Your task to perform on an android device: stop showing notifications on the lock screen Image 0: 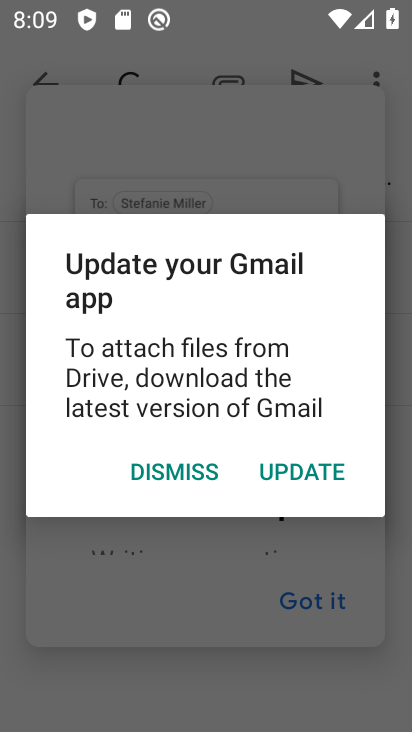
Step 0: press home button
Your task to perform on an android device: stop showing notifications on the lock screen Image 1: 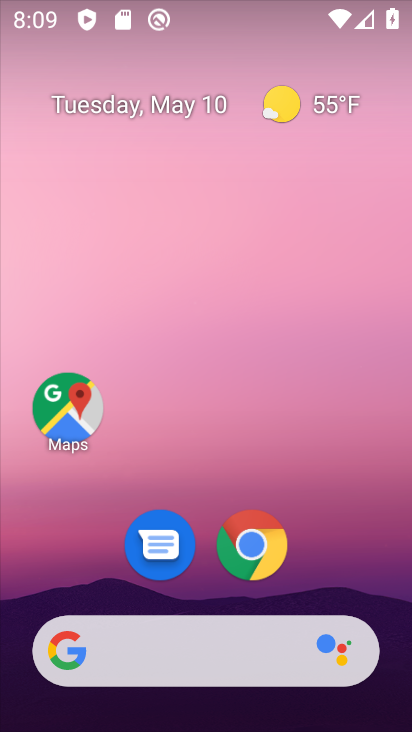
Step 1: drag from (208, 590) to (211, 111)
Your task to perform on an android device: stop showing notifications on the lock screen Image 2: 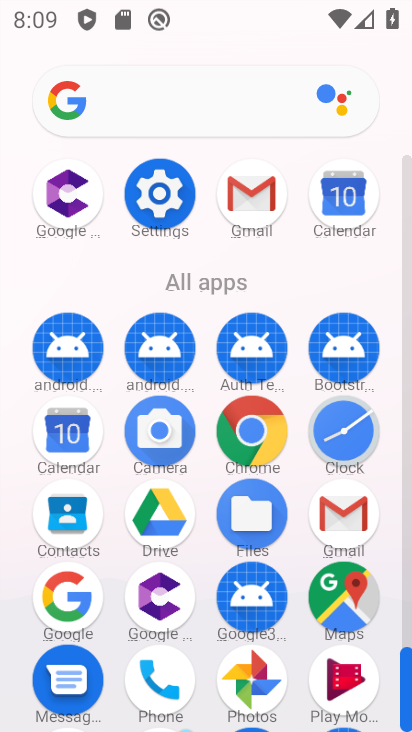
Step 2: click (161, 189)
Your task to perform on an android device: stop showing notifications on the lock screen Image 3: 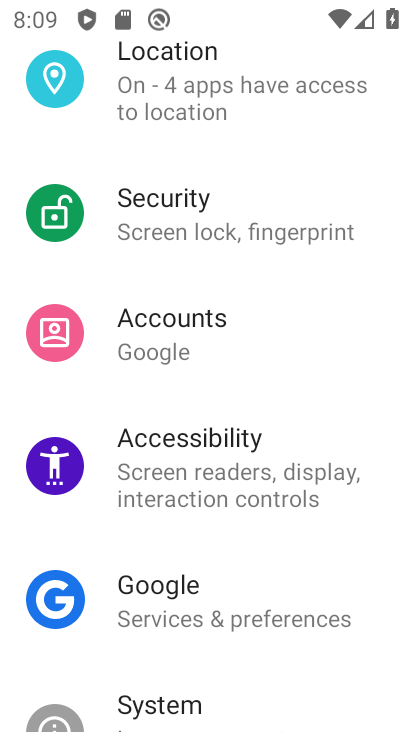
Step 3: drag from (209, 180) to (211, 616)
Your task to perform on an android device: stop showing notifications on the lock screen Image 4: 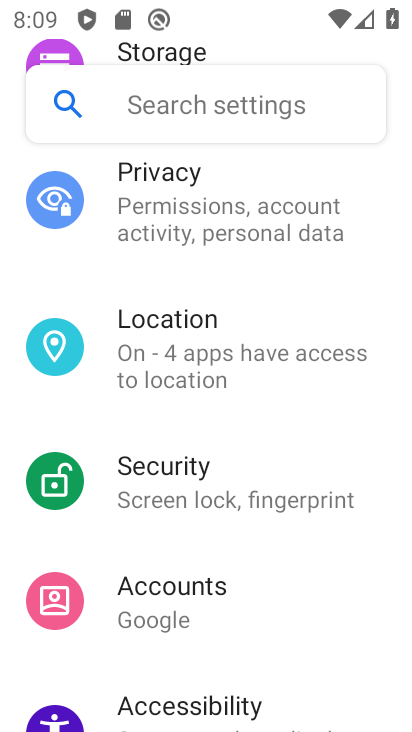
Step 4: drag from (238, 607) to (311, 297)
Your task to perform on an android device: stop showing notifications on the lock screen Image 5: 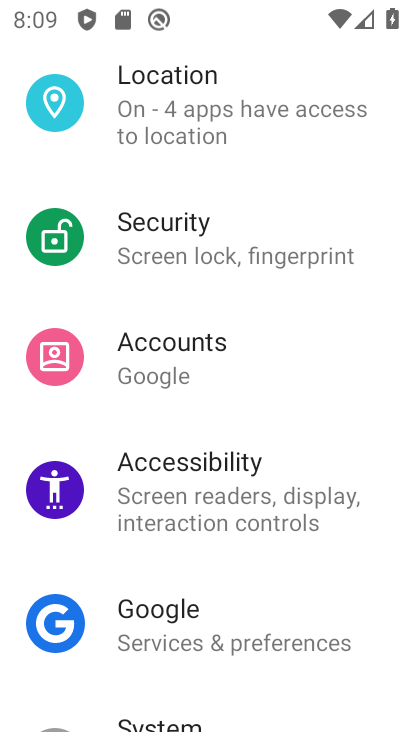
Step 5: drag from (263, 623) to (312, 306)
Your task to perform on an android device: stop showing notifications on the lock screen Image 6: 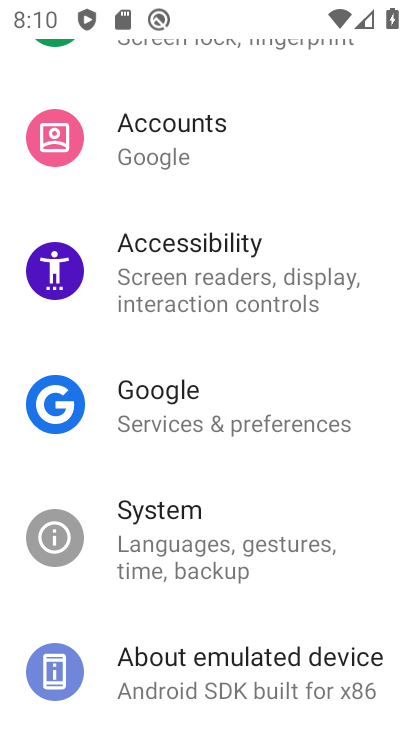
Step 6: drag from (251, 245) to (281, 602)
Your task to perform on an android device: stop showing notifications on the lock screen Image 7: 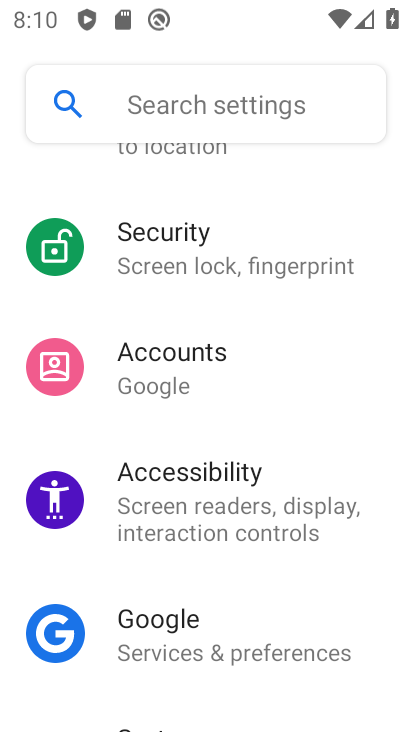
Step 7: drag from (258, 293) to (267, 590)
Your task to perform on an android device: stop showing notifications on the lock screen Image 8: 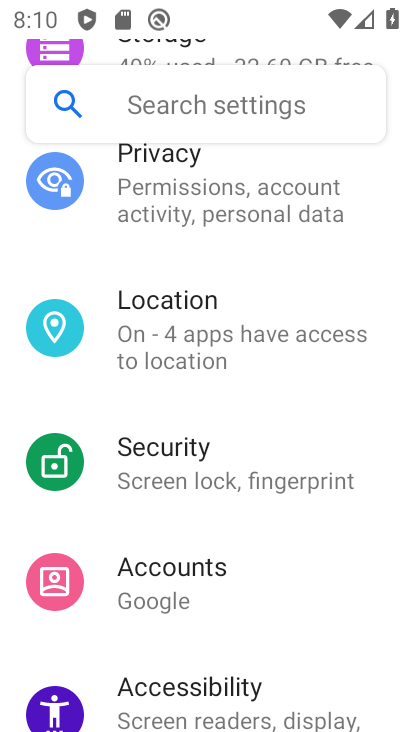
Step 8: drag from (212, 239) to (197, 612)
Your task to perform on an android device: stop showing notifications on the lock screen Image 9: 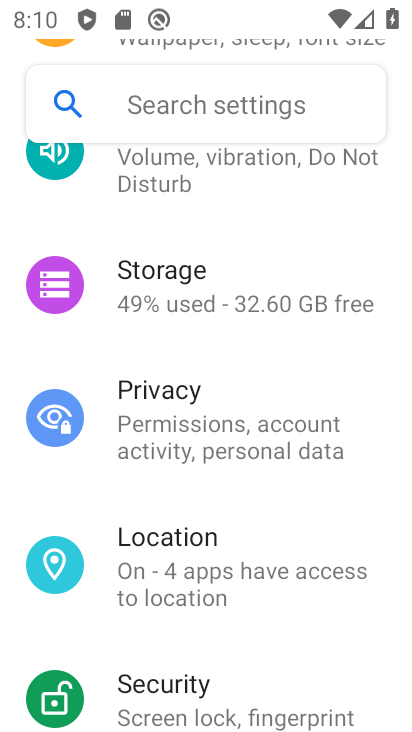
Step 9: drag from (203, 260) to (214, 542)
Your task to perform on an android device: stop showing notifications on the lock screen Image 10: 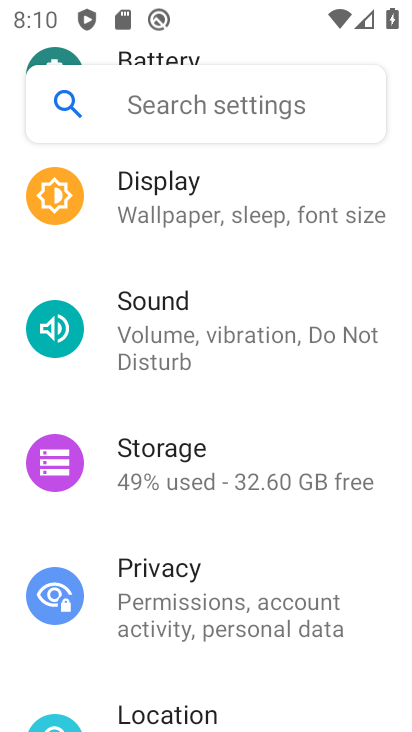
Step 10: drag from (227, 331) to (227, 530)
Your task to perform on an android device: stop showing notifications on the lock screen Image 11: 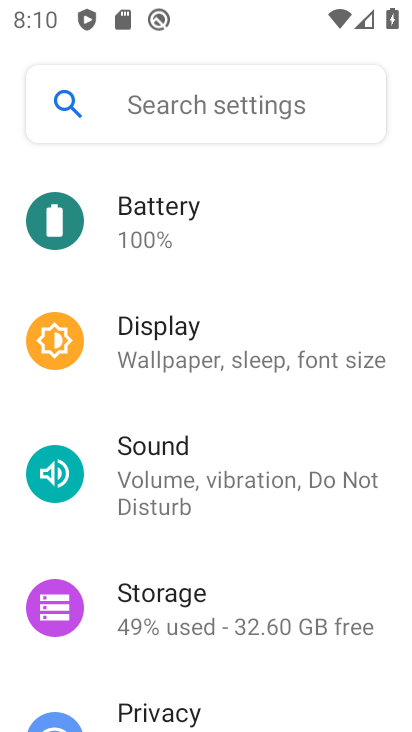
Step 11: drag from (240, 351) to (232, 663)
Your task to perform on an android device: stop showing notifications on the lock screen Image 12: 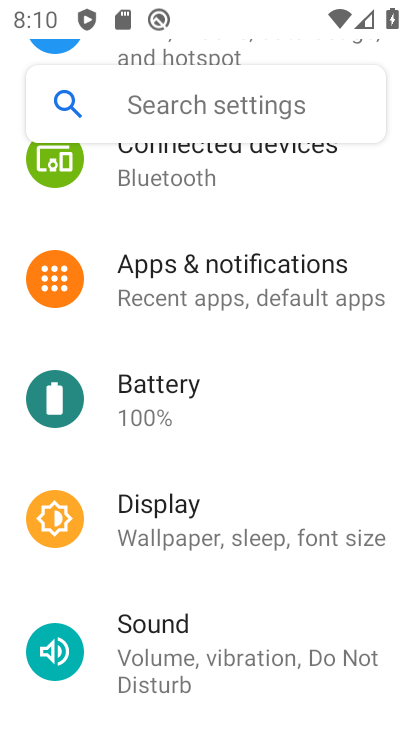
Step 12: click (246, 291)
Your task to perform on an android device: stop showing notifications on the lock screen Image 13: 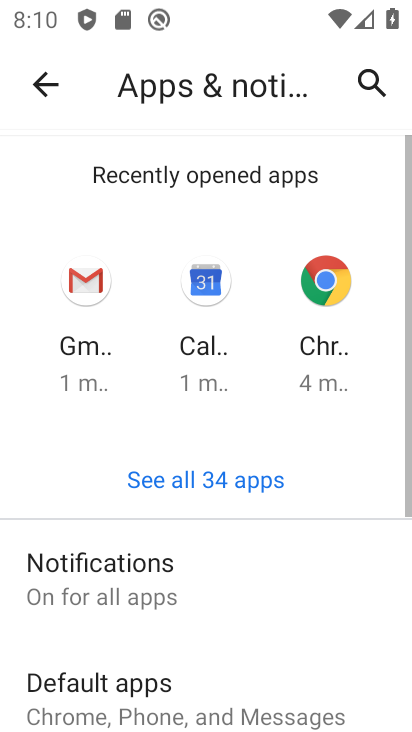
Step 13: click (191, 607)
Your task to perform on an android device: stop showing notifications on the lock screen Image 14: 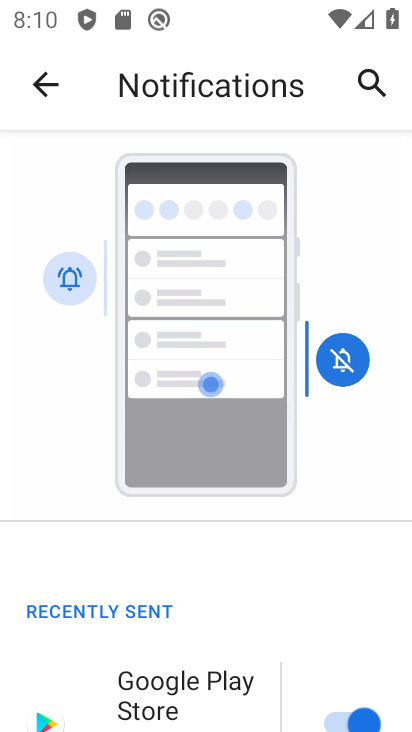
Step 14: drag from (199, 670) to (250, 307)
Your task to perform on an android device: stop showing notifications on the lock screen Image 15: 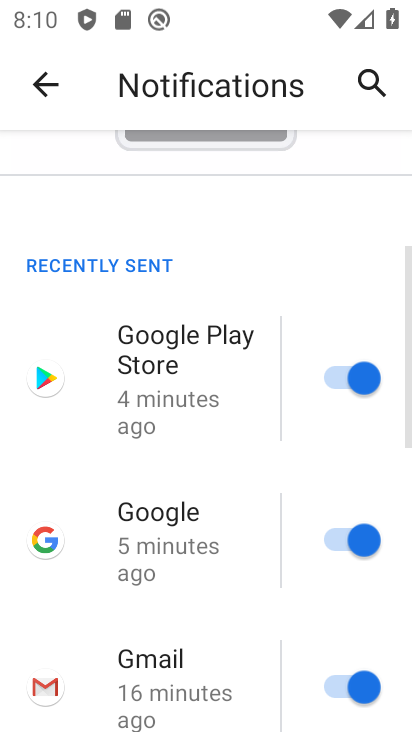
Step 15: drag from (215, 646) to (252, 315)
Your task to perform on an android device: stop showing notifications on the lock screen Image 16: 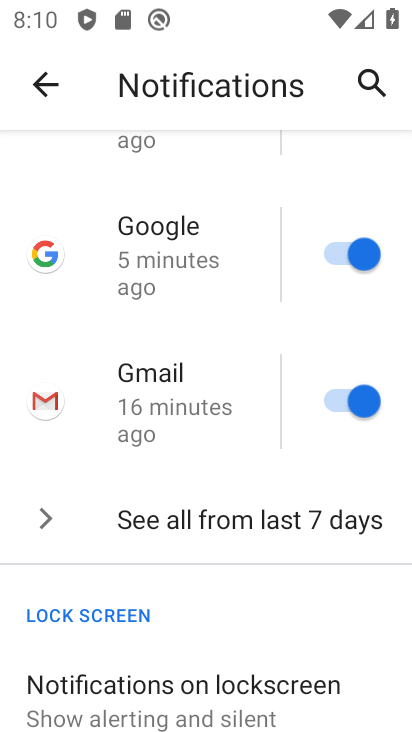
Step 16: click (240, 684)
Your task to perform on an android device: stop showing notifications on the lock screen Image 17: 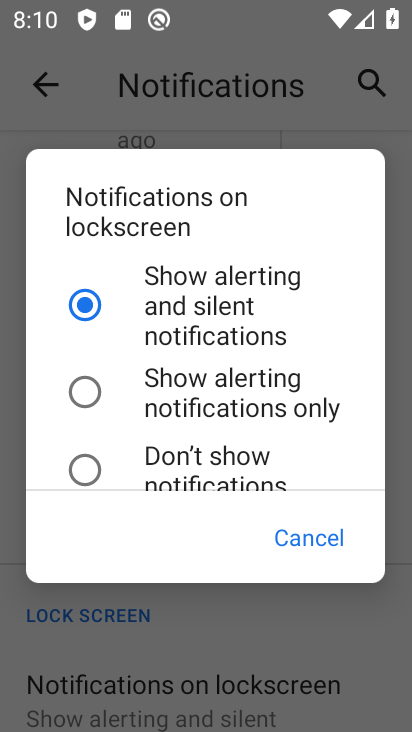
Step 17: click (182, 456)
Your task to perform on an android device: stop showing notifications on the lock screen Image 18: 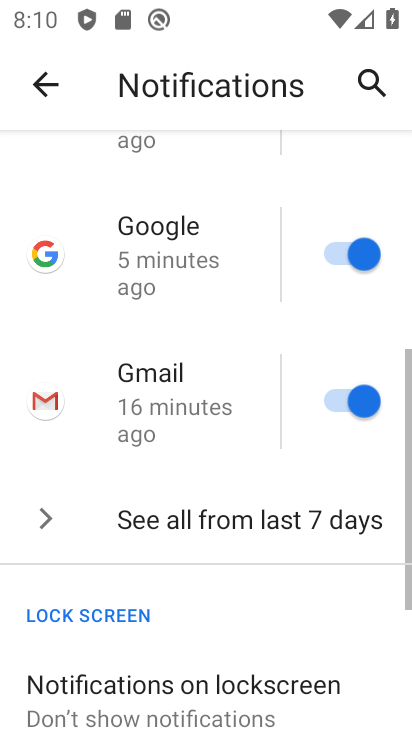
Step 18: task complete